Your task to perform on an android device: turn on bluetooth scan Image 0: 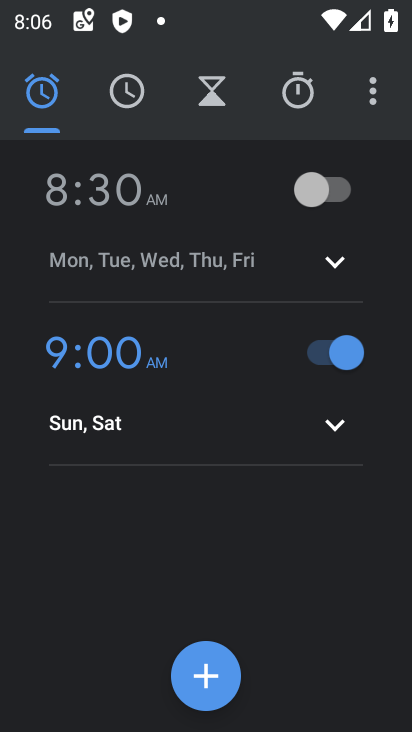
Step 0: press home button
Your task to perform on an android device: turn on bluetooth scan Image 1: 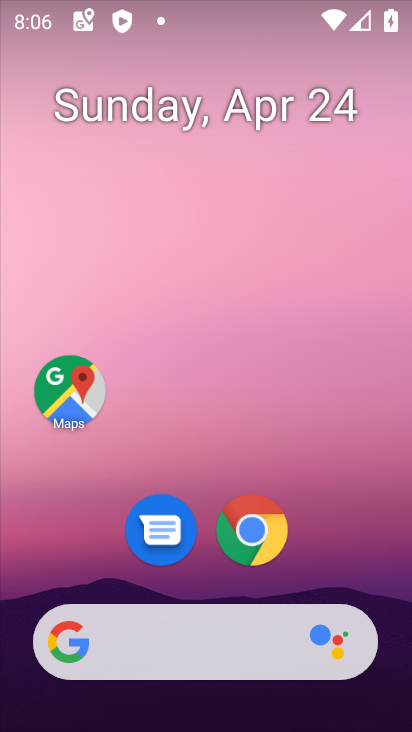
Step 1: drag from (254, 498) to (347, 6)
Your task to perform on an android device: turn on bluetooth scan Image 2: 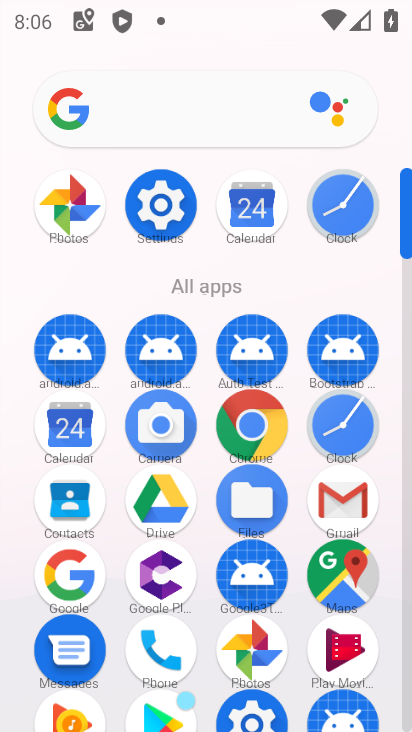
Step 2: click (167, 203)
Your task to perform on an android device: turn on bluetooth scan Image 3: 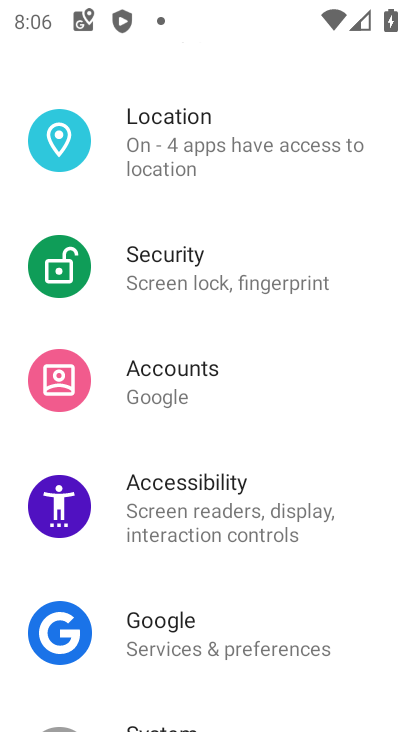
Step 3: click (204, 166)
Your task to perform on an android device: turn on bluetooth scan Image 4: 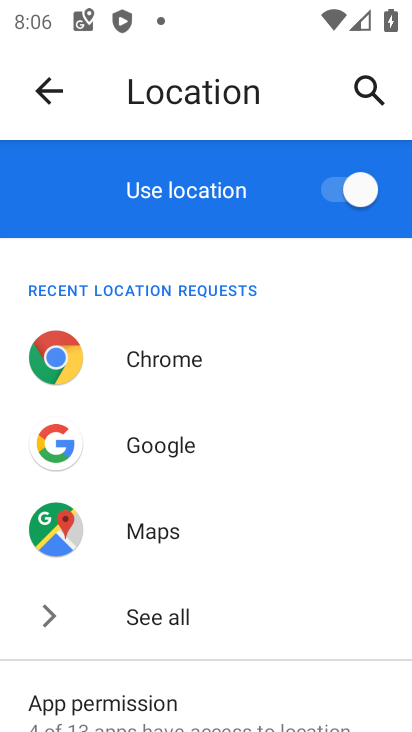
Step 4: drag from (185, 287) to (178, 122)
Your task to perform on an android device: turn on bluetooth scan Image 5: 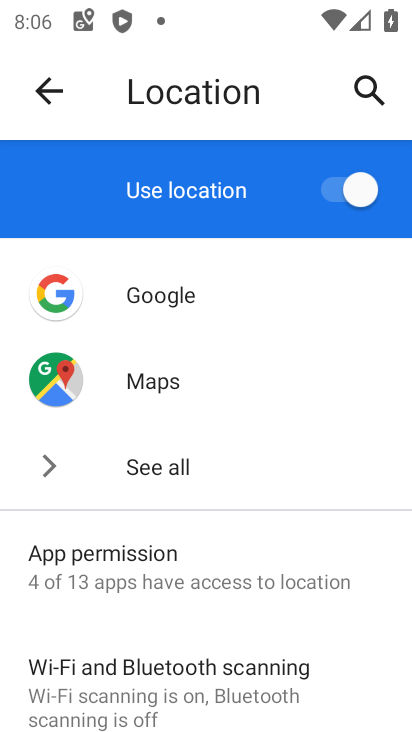
Step 5: drag from (152, 637) to (178, 214)
Your task to perform on an android device: turn on bluetooth scan Image 6: 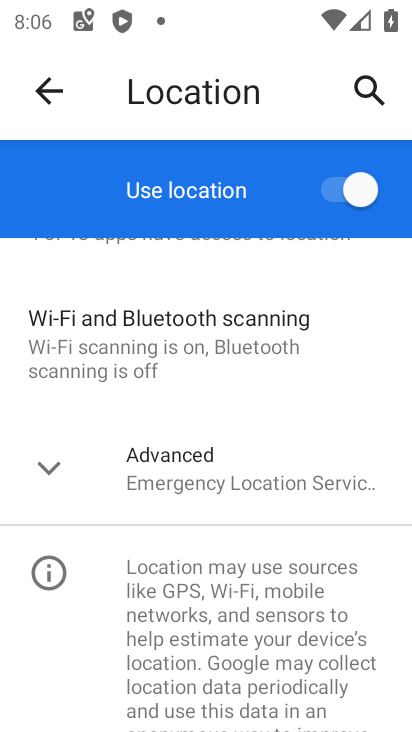
Step 6: click (183, 356)
Your task to perform on an android device: turn on bluetooth scan Image 7: 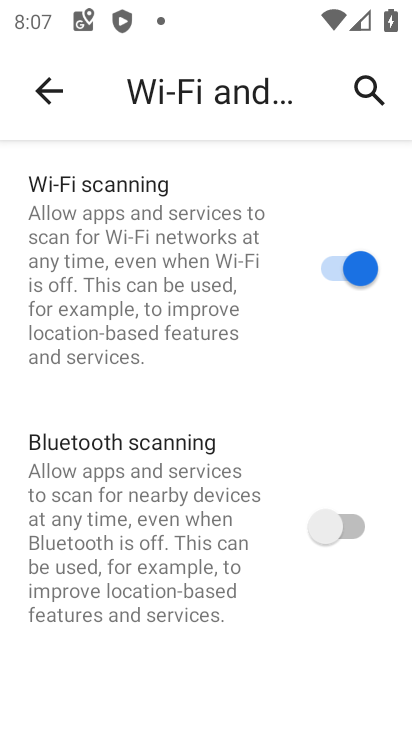
Step 7: click (347, 532)
Your task to perform on an android device: turn on bluetooth scan Image 8: 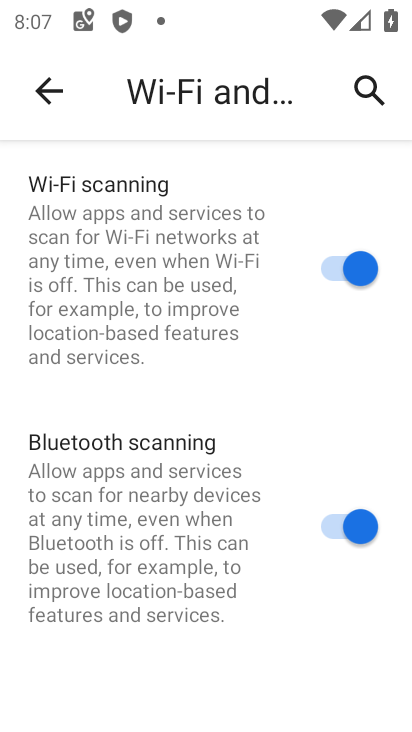
Step 8: task complete